Your task to perform on an android device: toggle javascript in the chrome app Image 0: 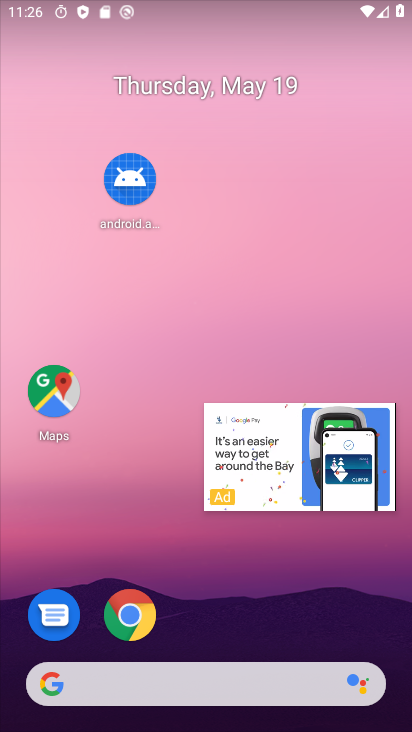
Step 0: drag from (358, 454) to (228, 706)
Your task to perform on an android device: toggle javascript in the chrome app Image 1: 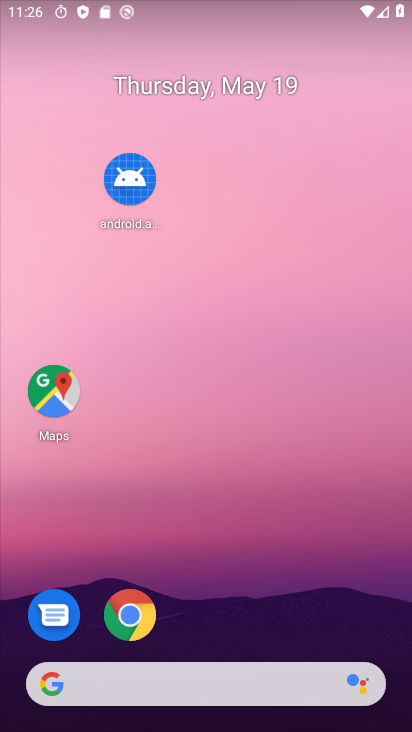
Step 1: click (145, 613)
Your task to perform on an android device: toggle javascript in the chrome app Image 2: 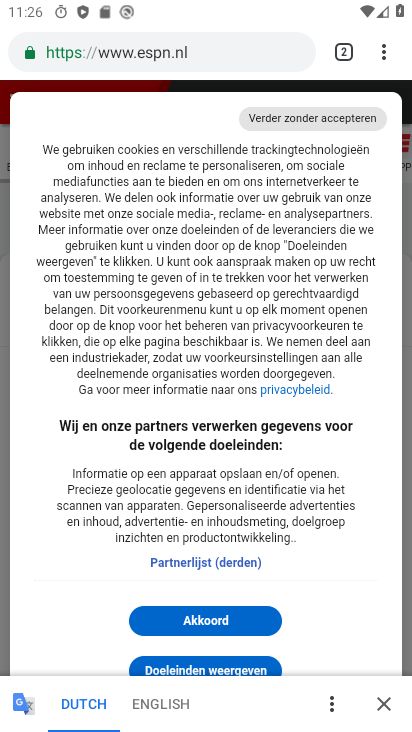
Step 2: click (387, 50)
Your task to perform on an android device: toggle javascript in the chrome app Image 3: 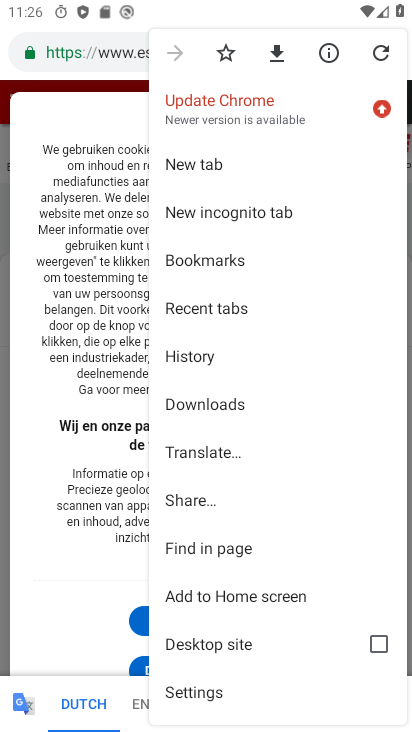
Step 3: click (247, 688)
Your task to perform on an android device: toggle javascript in the chrome app Image 4: 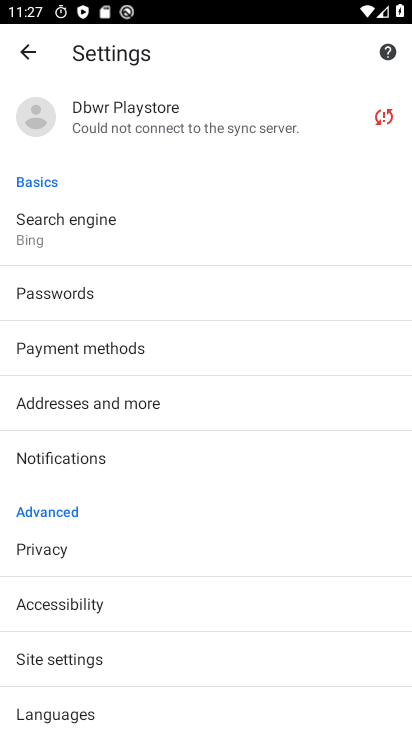
Step 4: drag from (208, 593) to (179, 418)
Your task to perform on an android device: toggle javascript in the chrome app Image 5: 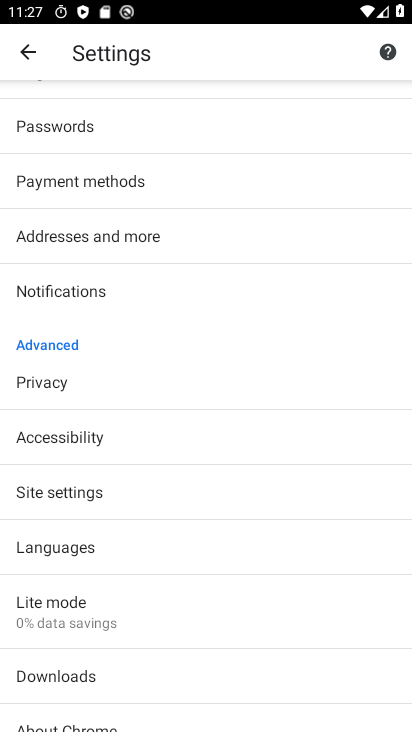
Step 5: click (79, 500)
Your task to perform on an android device: toggle javascript in the chrome app Image 6: 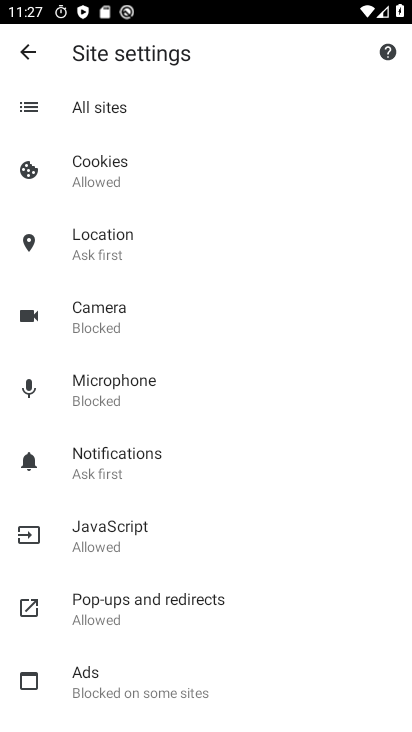
Step 6: click (107, 550)
Your task to perform on an android device: toggle javascript in the chrome app Image 7: 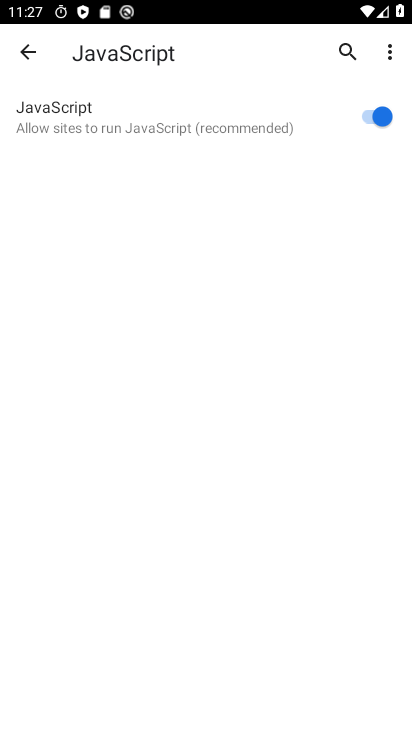
Step 7: click (378, 112)
Your task to perform on an android device: toggle javascript in the chrome app Image 8: 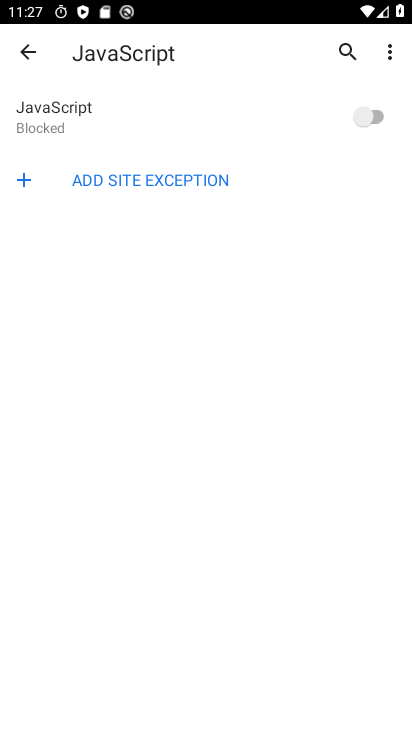
Step 8: task complete